Your task to perform on an android device: visit the assistant section in the google photos Image 0: 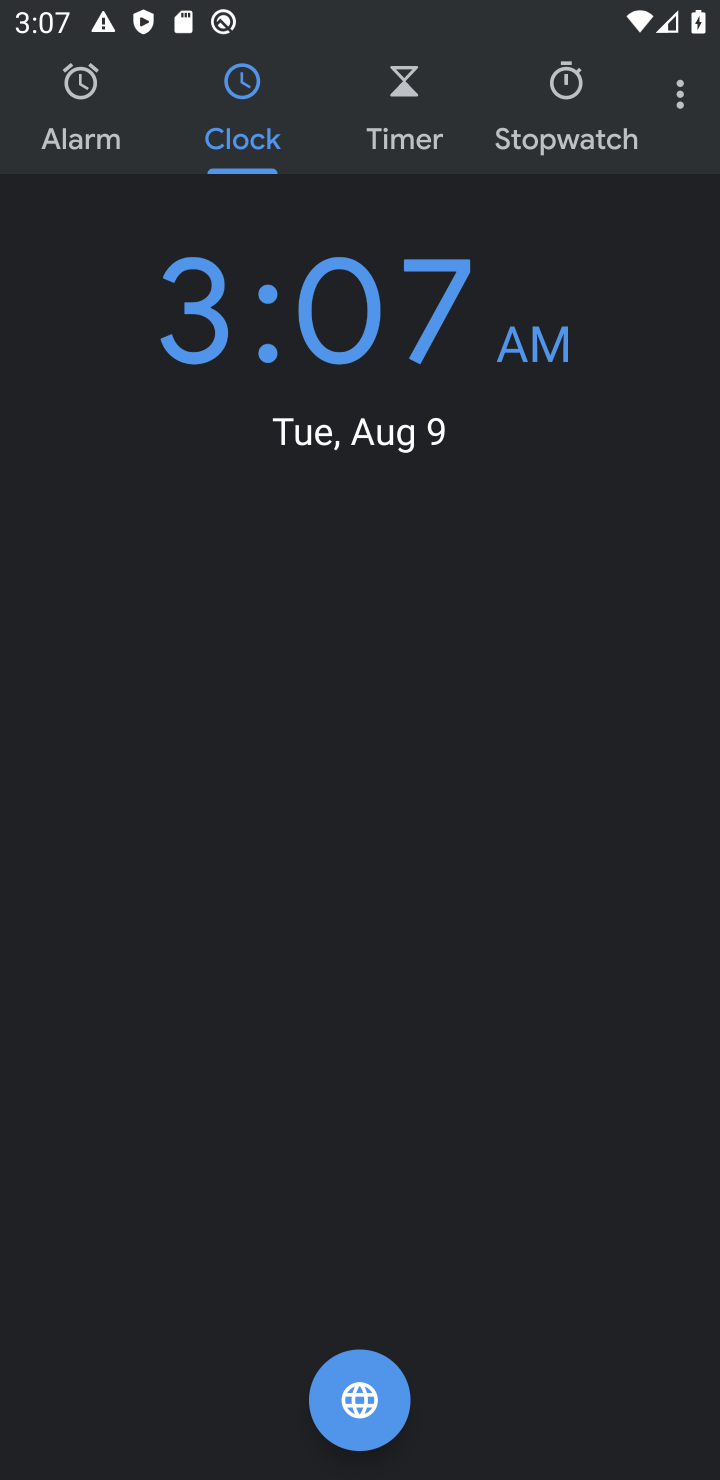
Step 0: press home button
Your task to perform on an android device: visit the assistant section in the google photos Image 1: 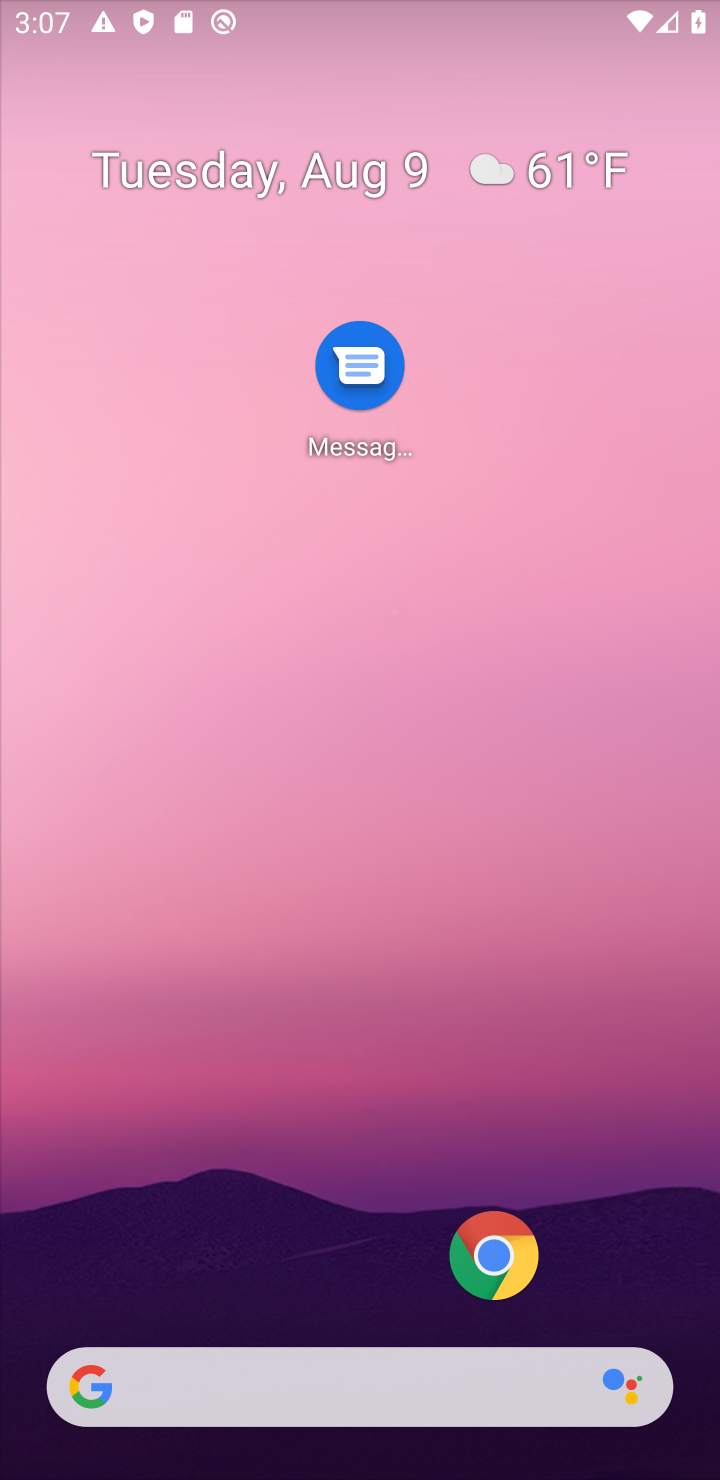
Step 1: drag from (377, 1296) to (409, 567)
Your task to perform on an android device: visit the assistant section in the google photos Image 2: 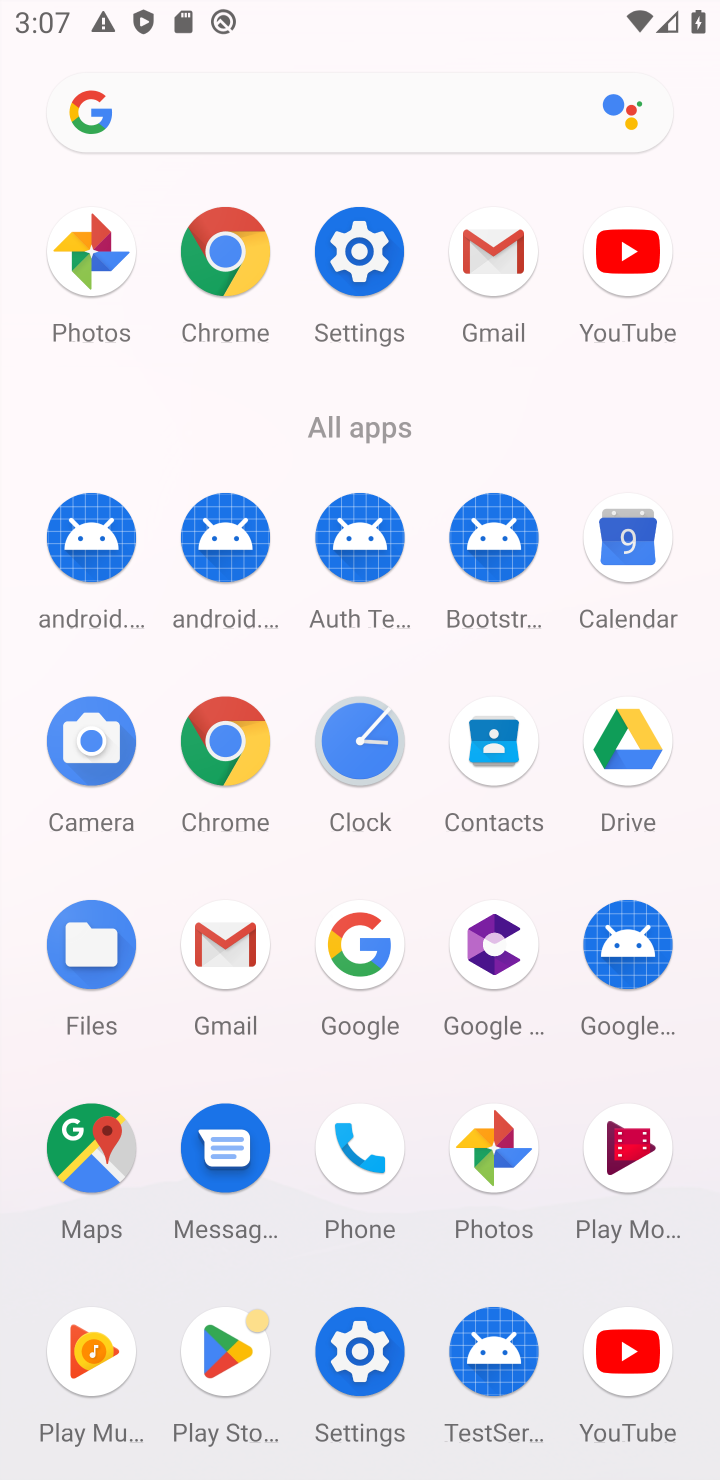
Step 2: click (497, 1173)
Your task to perform on an android device: visit the assistant section in the google photos Image 3: 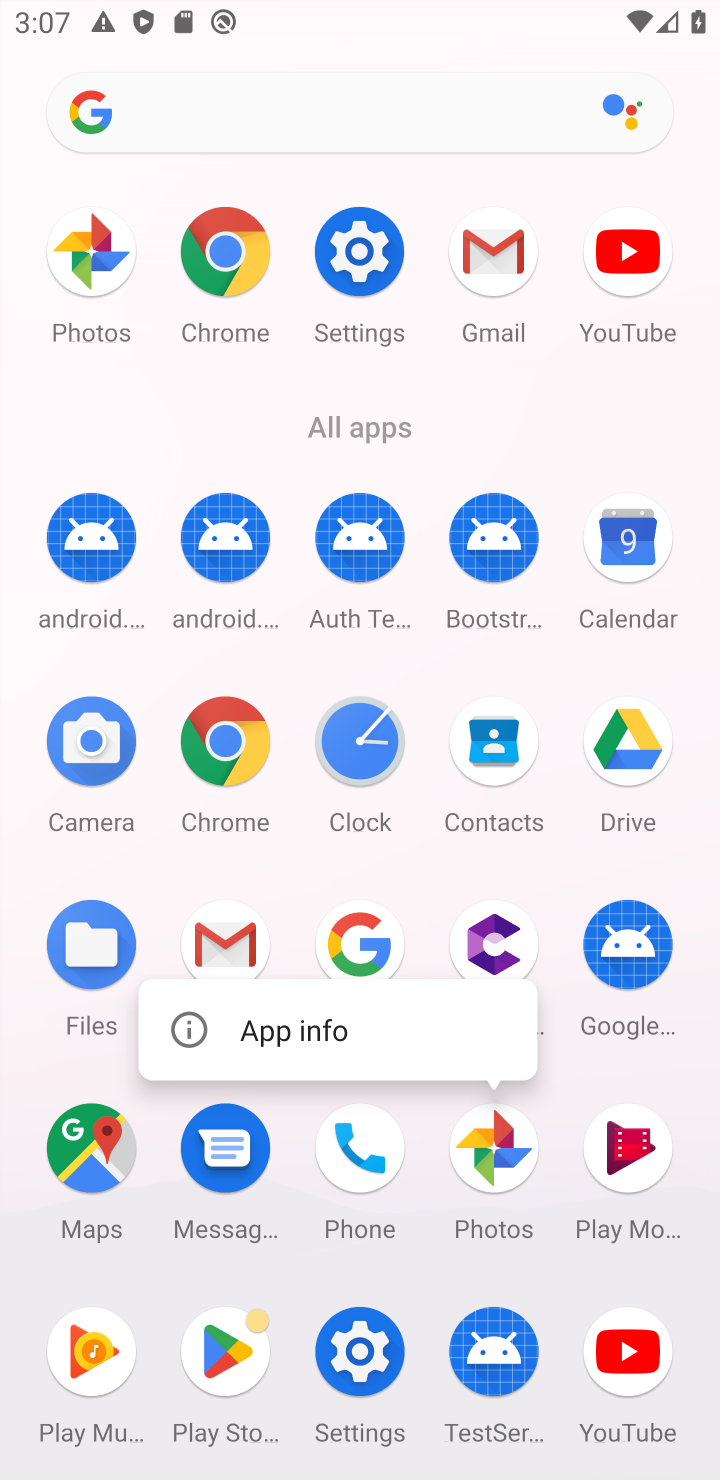
Step 3: click (493, 1162)
Your task to perform on an android device: visit the assistant section in the google photos Image 4: 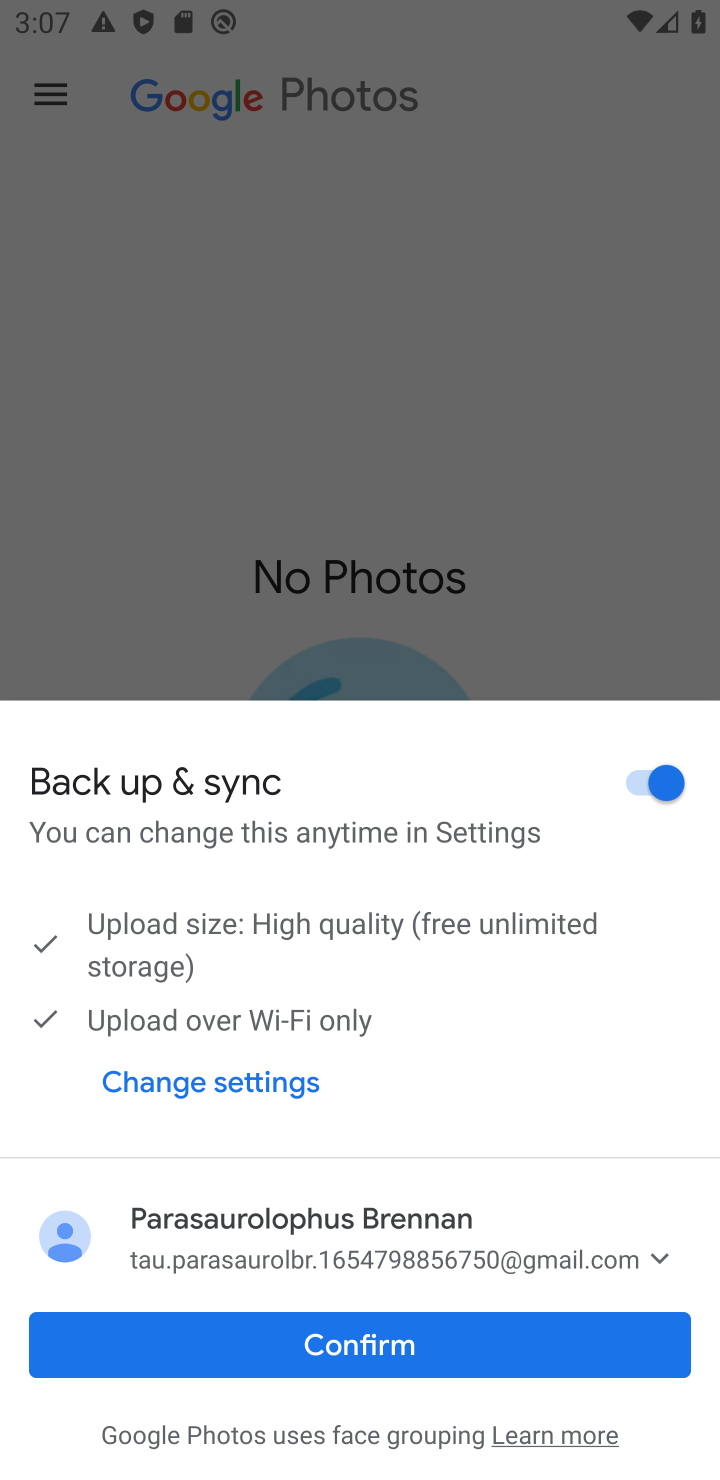
Step 4: click (457, 1340)
Your task to perform on an android device: visit the assistant section in the google photos Image 5: 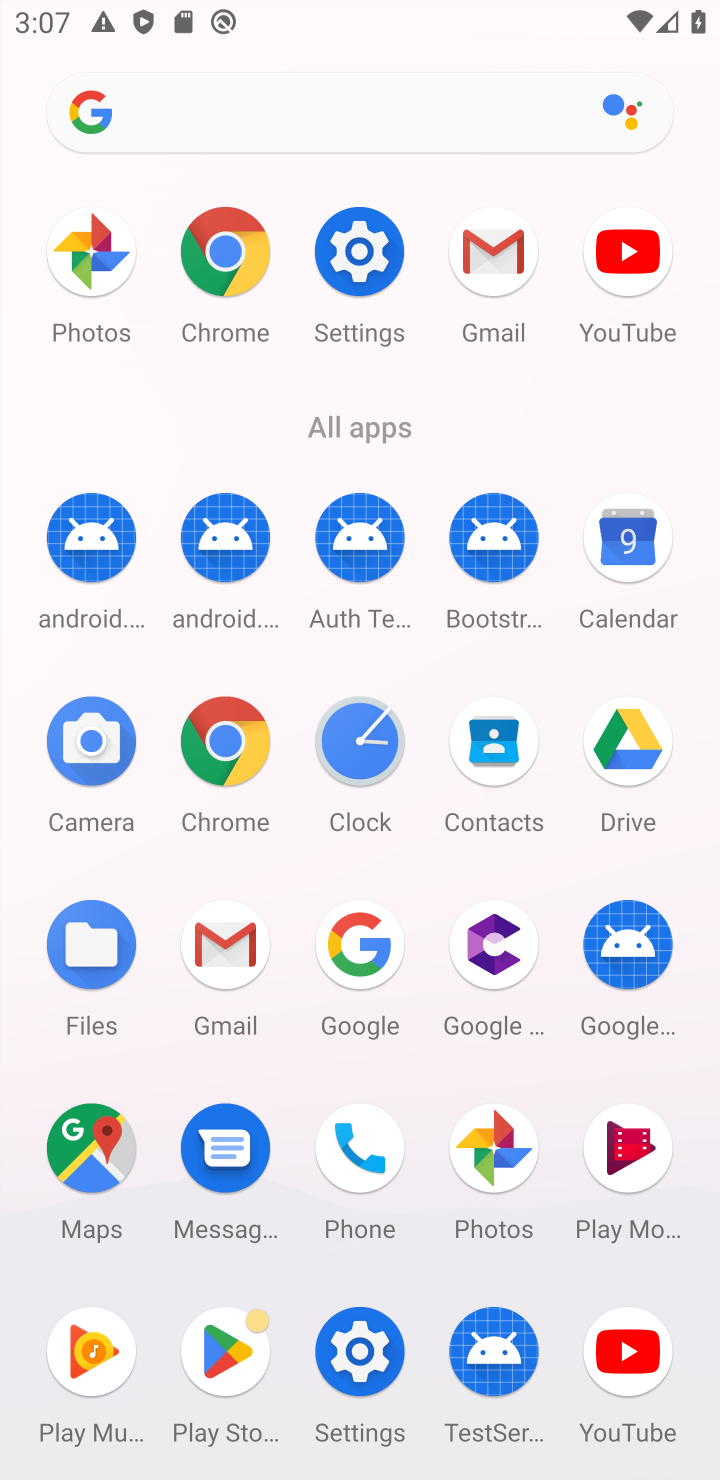
Step 5: click (466, 1132)
Your task to perform on an android device: visit the assistant section in the google photos Image 6: 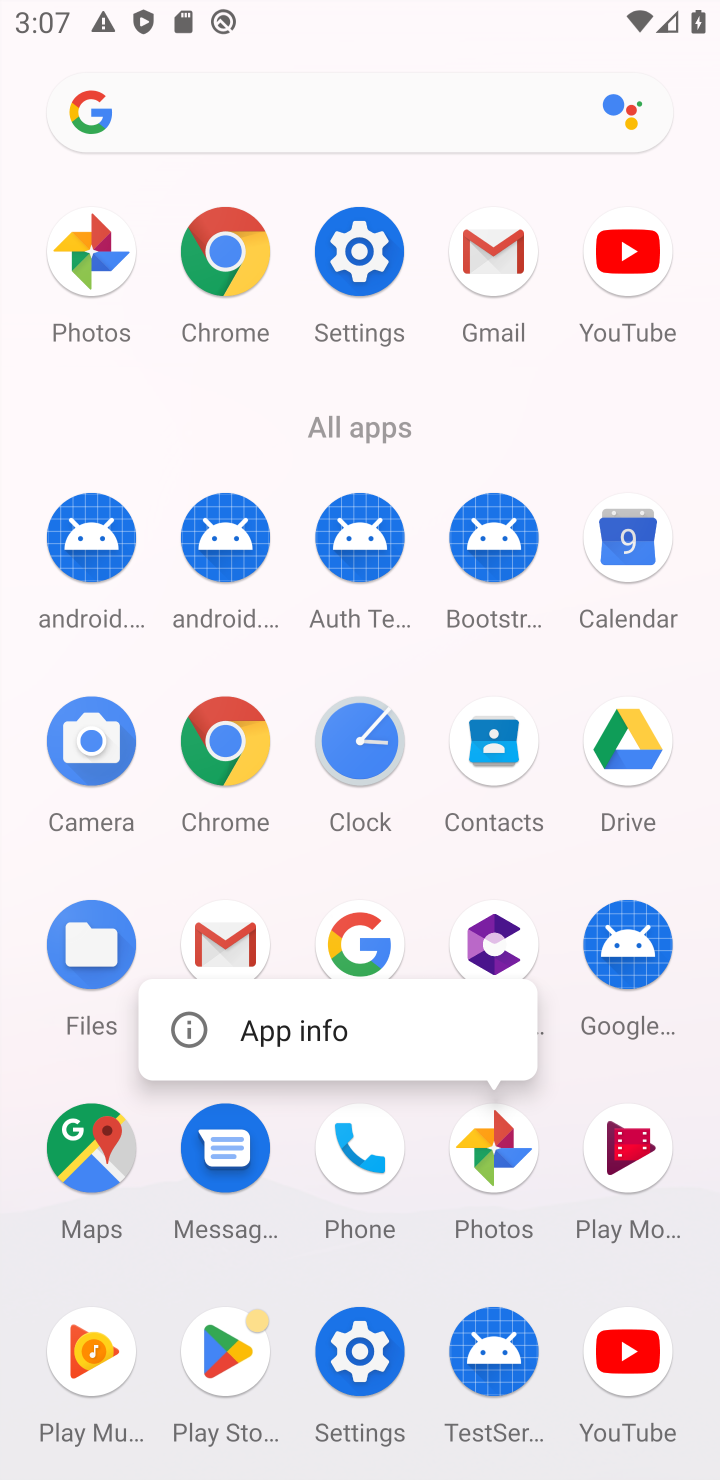
Step 6: click (480, 1151)
Your task to perform on an android device: visit the assistant section in the google photos Image 7: 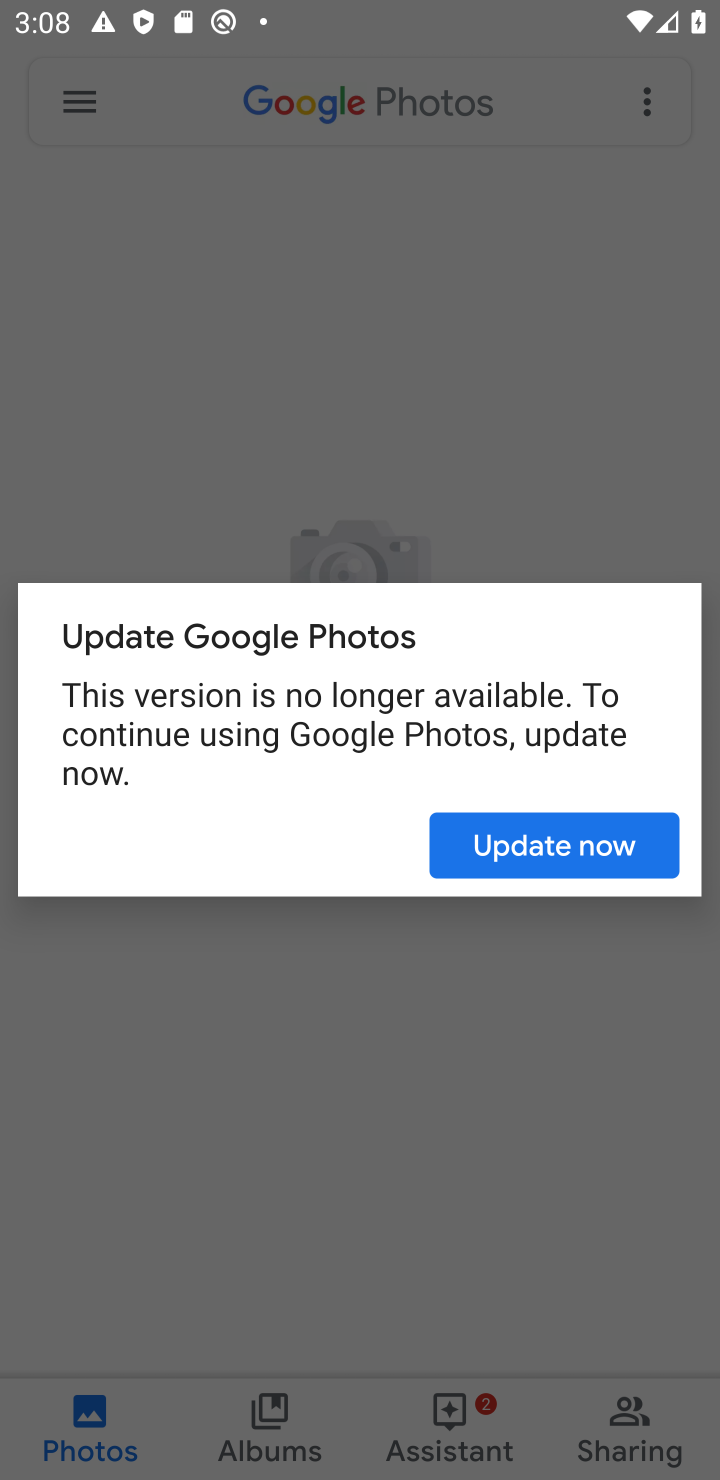
Step 7: click (508, 857)
Your task to perform on an android device: visit the assistant section in the google photos Image 8: 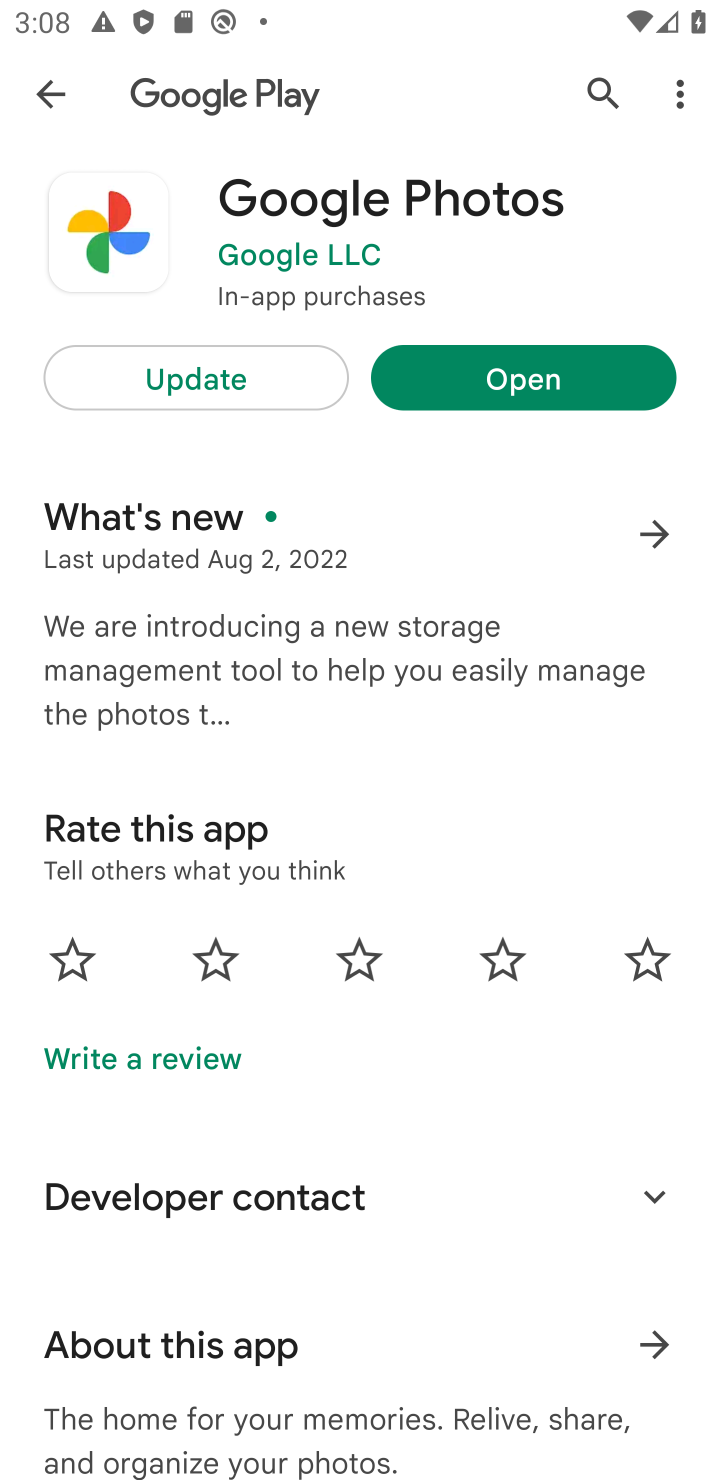
Step 8: click (27, 92)
Your task to perform on an android device: visit the assistant section in the google photos Image 9: 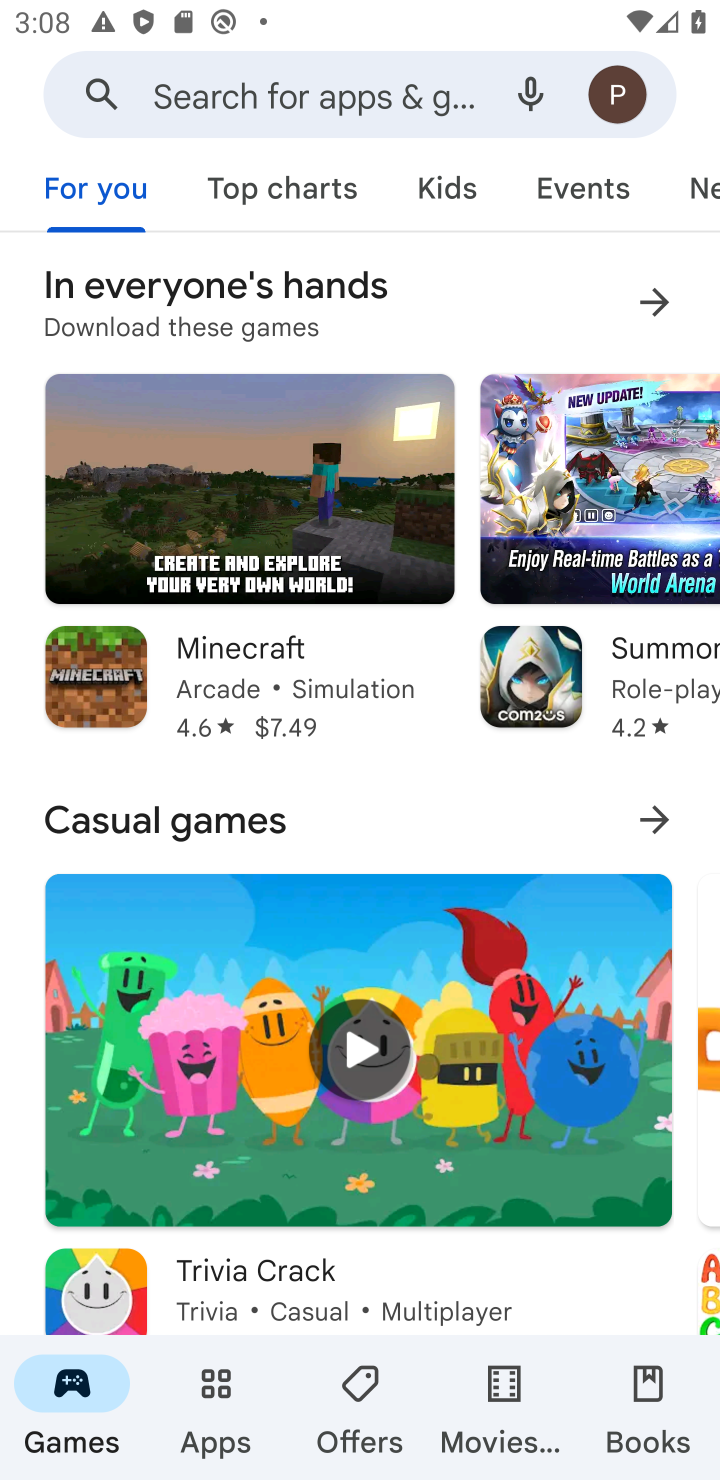
Step 9: drag from (227, 1413) to (688, 983)
Your task to perform on an android device: visit the assistant section in the google photos Image 10: 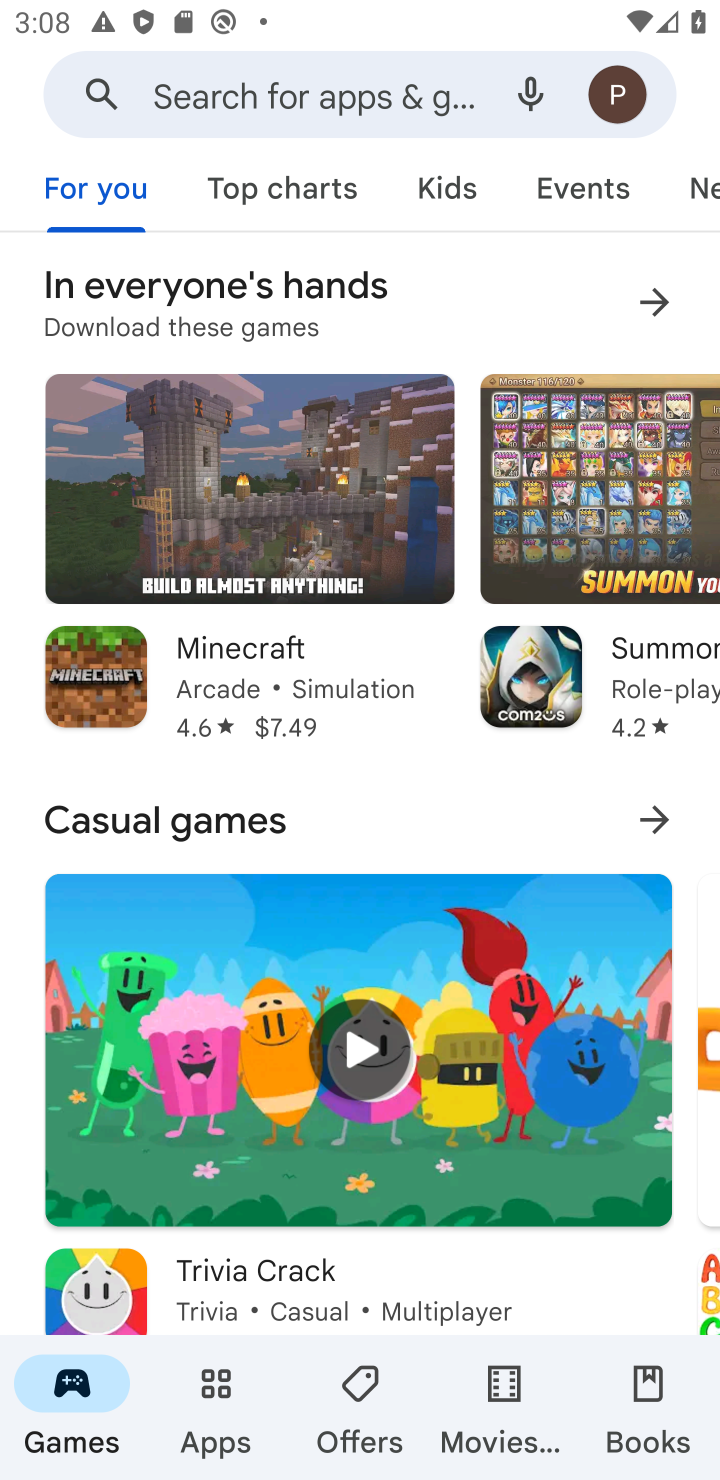
Step 10: press home button
Your task to perform on an android device: visit the assistant section in the google photos Image 11: 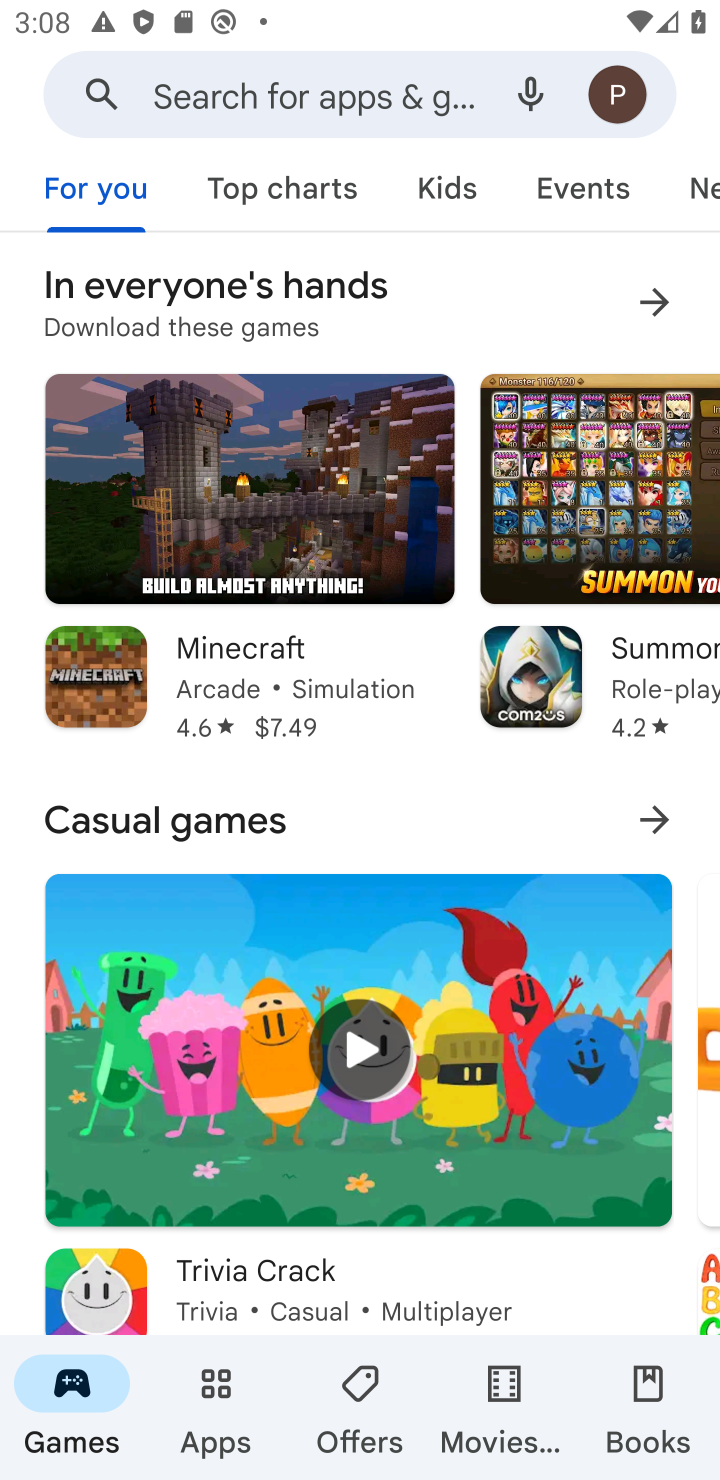
Step 11: click (688, 983)
Your task to perform on an android device: visit the assistant section in the google photos Image 12: 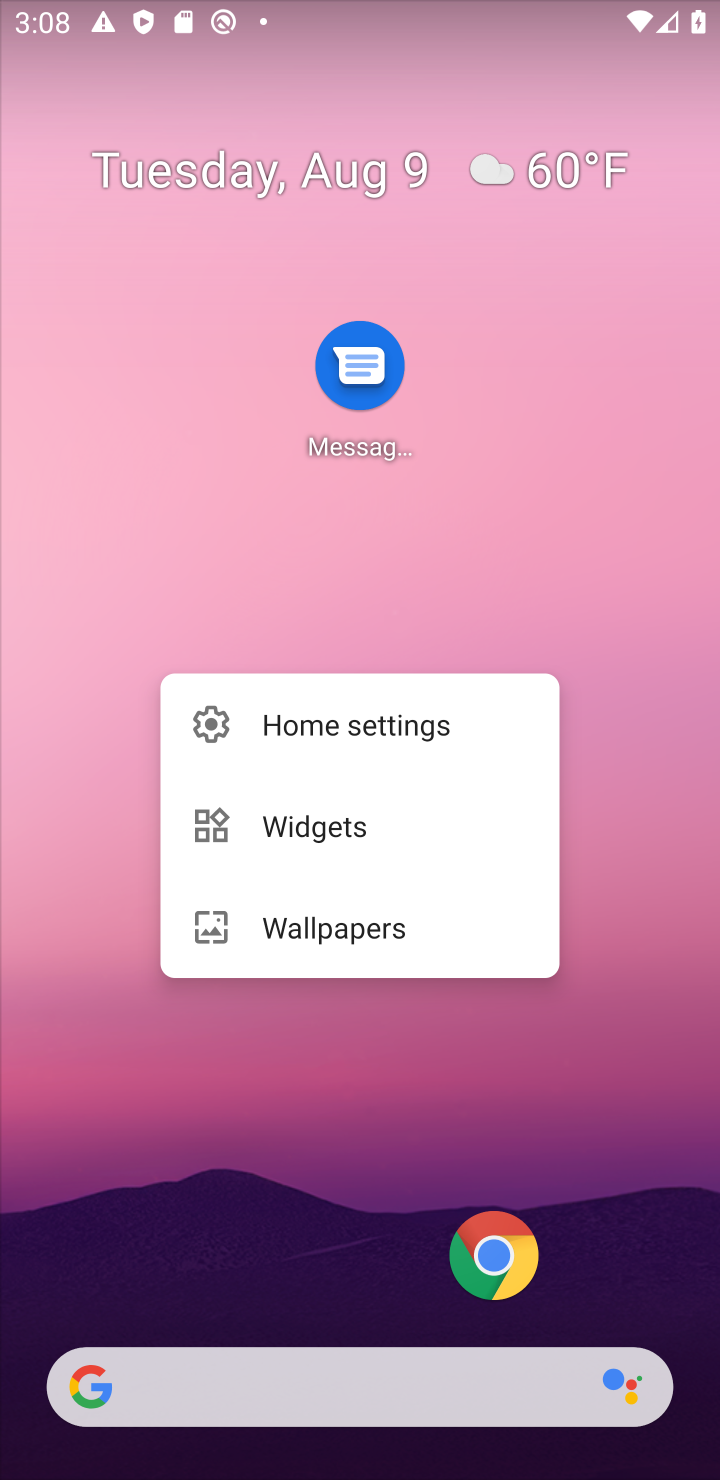
Step 12: click (365, 1184)
Your task to perform on an android device: visit the assistant section in the google photos Image 13: 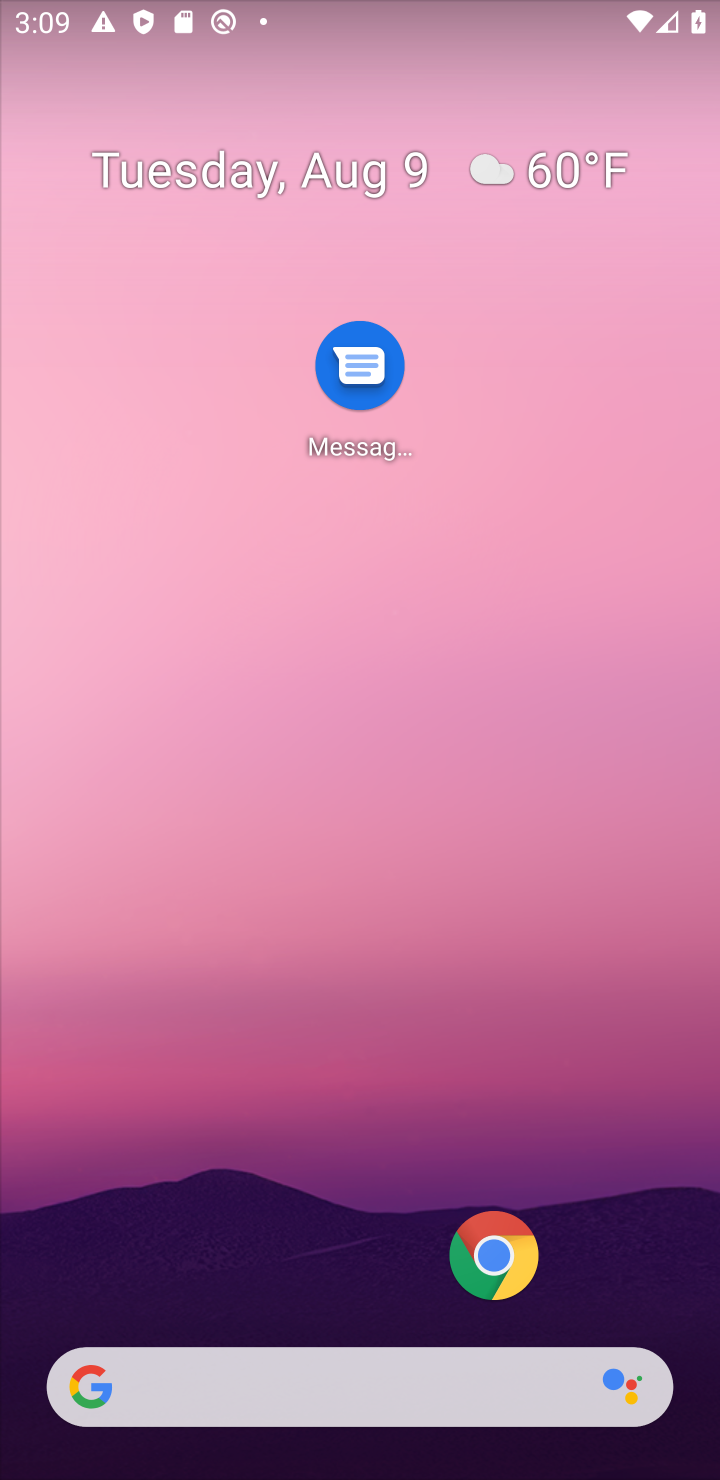
Step 13: drag from (400, 1129) to (472, 281)
Your task to perform on an android device: visit the assistant section in the google photos Image 14: 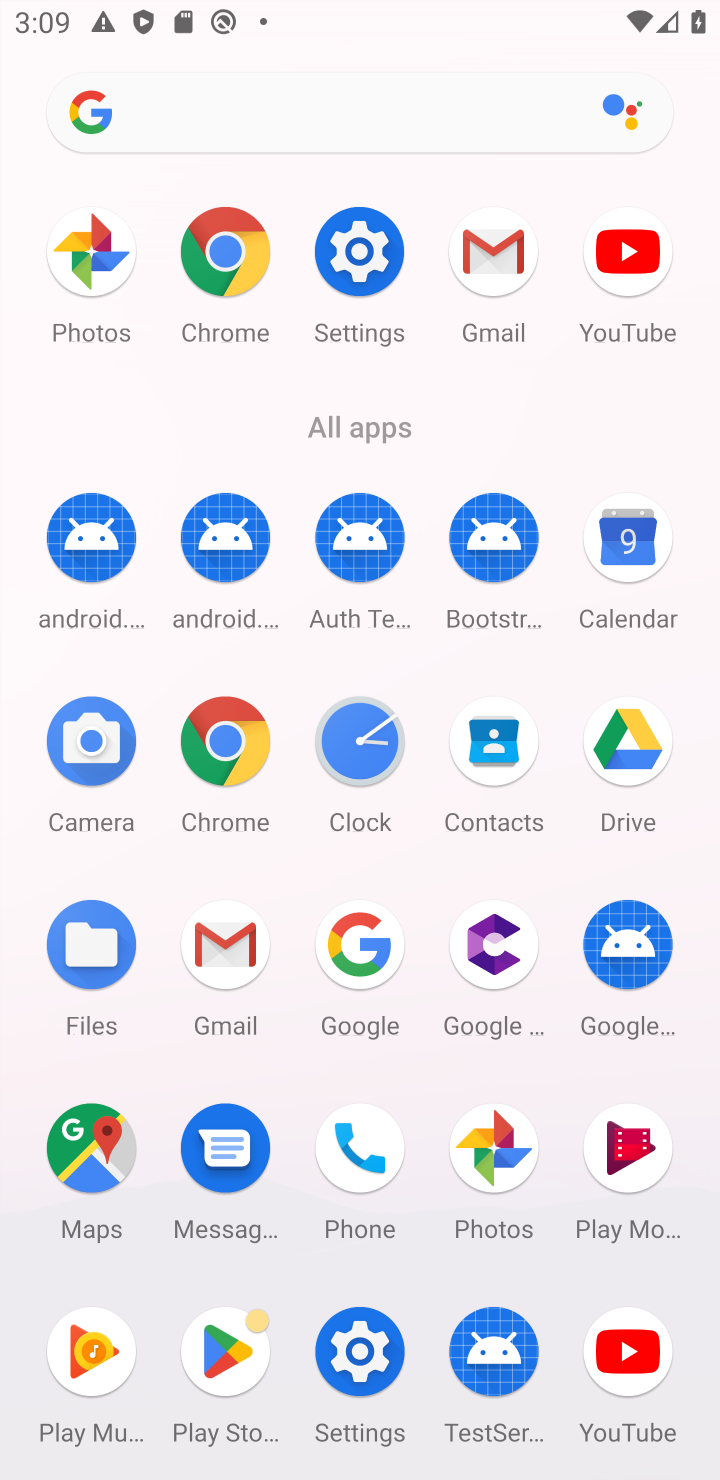
Step 14: click (444, 1132)
Your task to perform on an android device: visit the assistant section in the google photos Image 15: 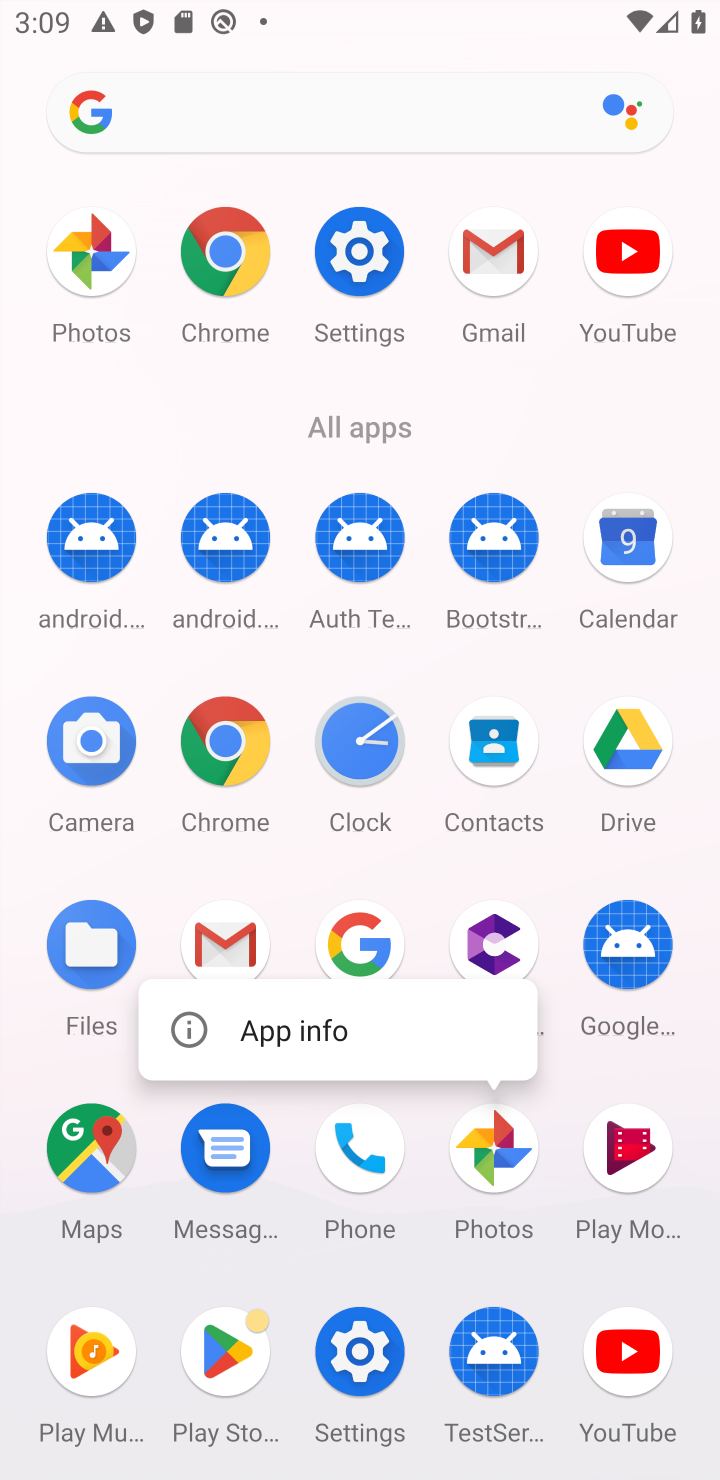
Step 15: click (452, 1145)
Your task to perform on an android device: visit the assistant section in the google photos Image 16: 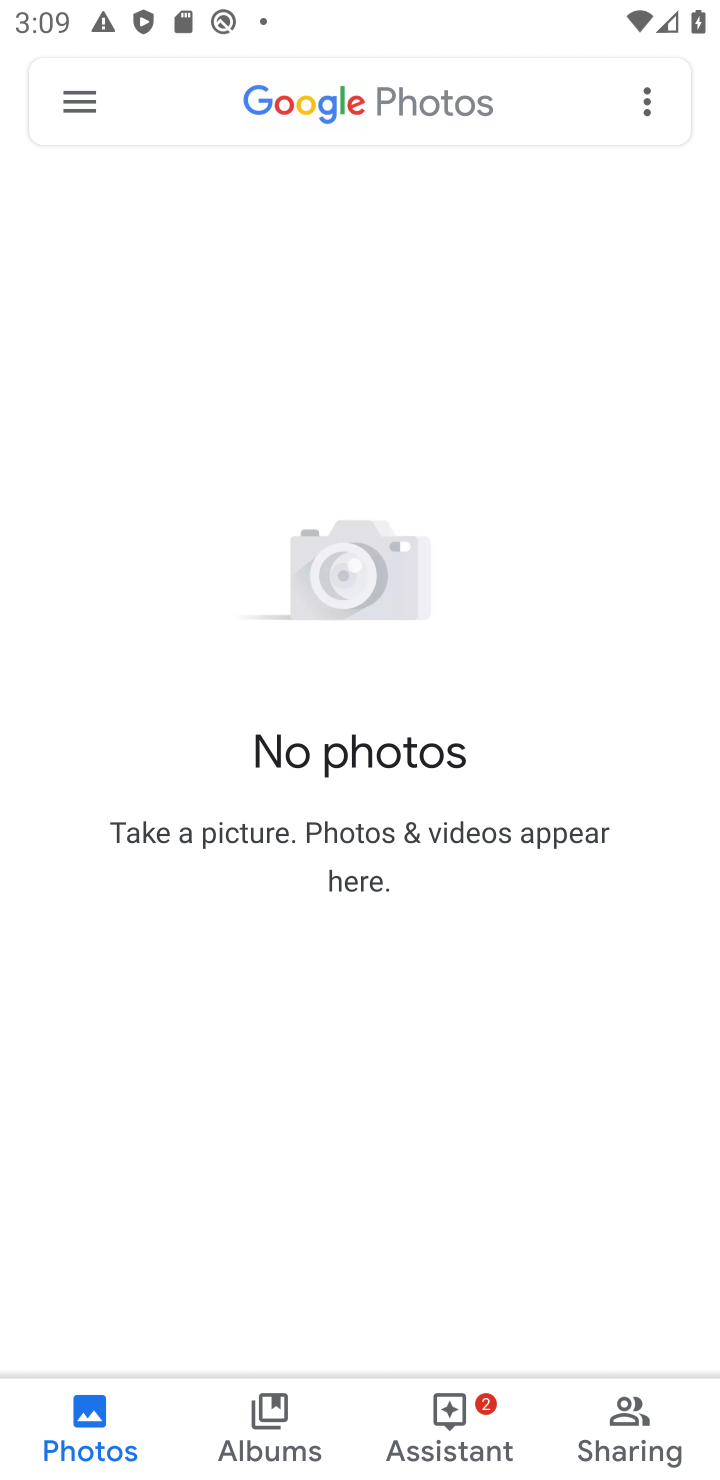
Step 16: click (467, 1418)
Your task to perform on an android device: visit the assistant section in the google photos Image 17: 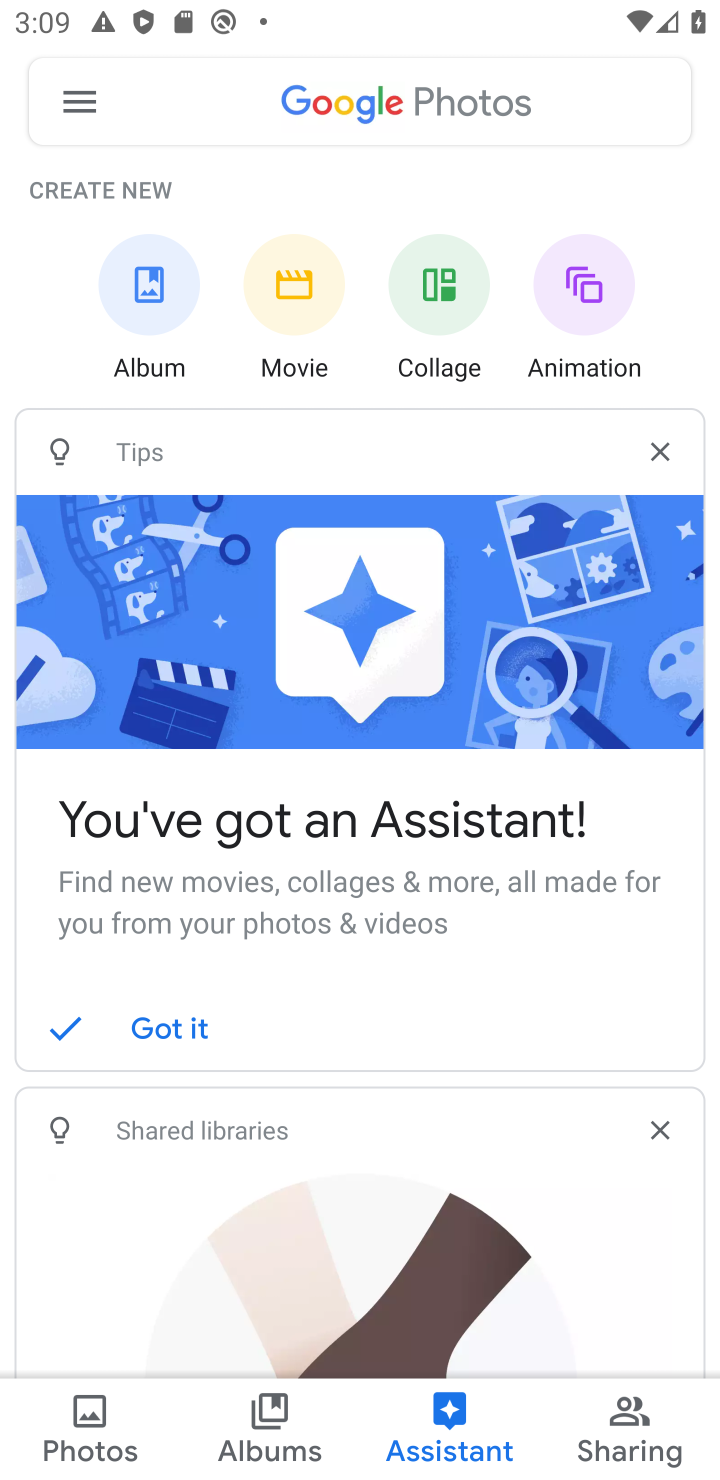
Step 17: task complete